Your task to perform on an android device: open chrome privacy settings Image 0: 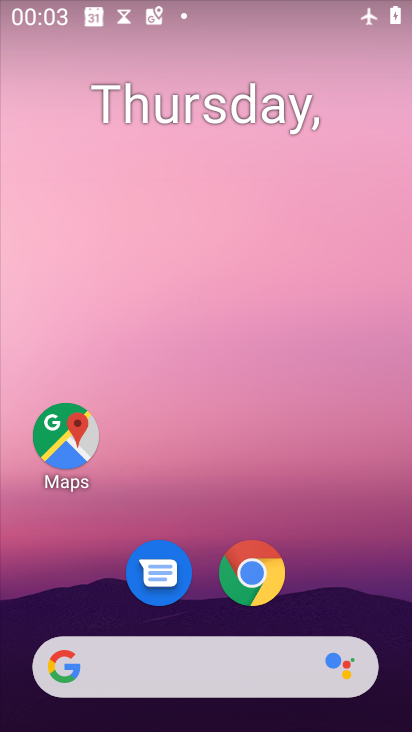
Step 0: click (253, 554)
Your task to perform on an android device: open chrome privacy settings Image 1: 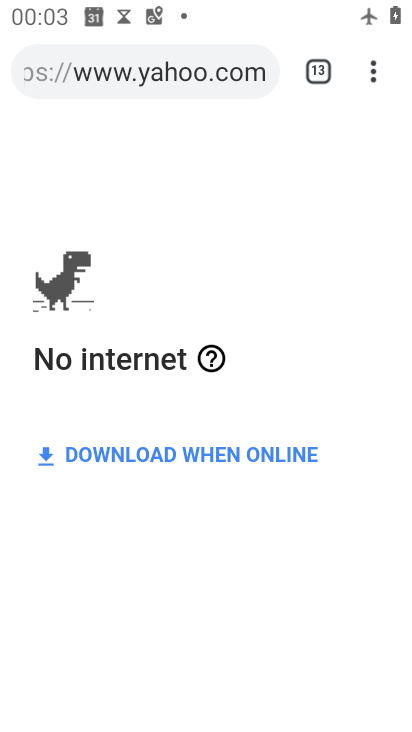
Step 1: click (379, 63)
Your task to perform on an android device: open chrome privacy settings Image 2: 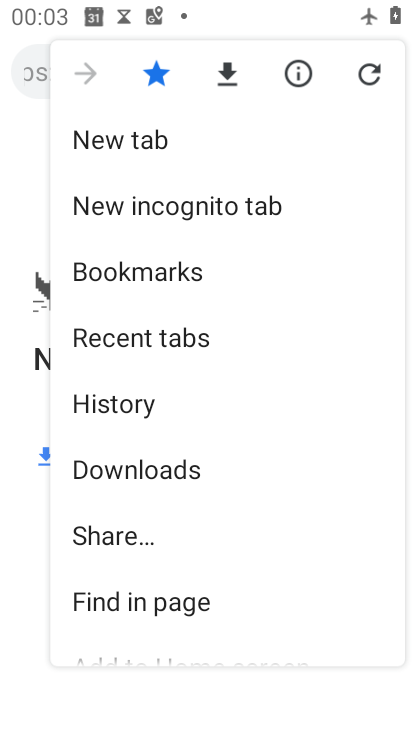
Step 2: drag from (201, 550) to (215, 235)
Your task to perform on an android device: open chrome privacy settings Image 3: 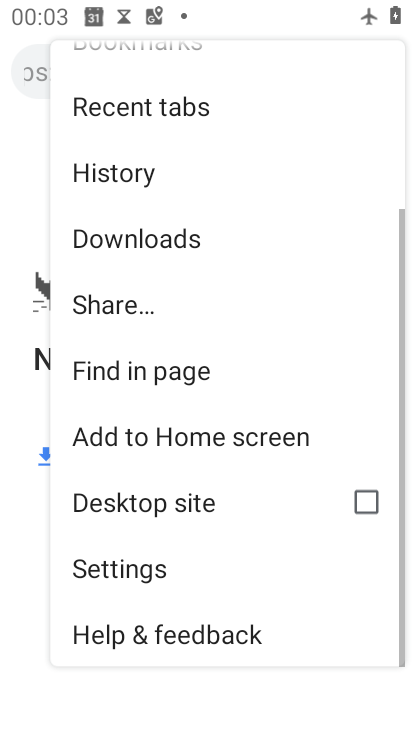
Step 3: click (155, 569)
Your task to perform on an android device: open chrome privacy settings Image 4: 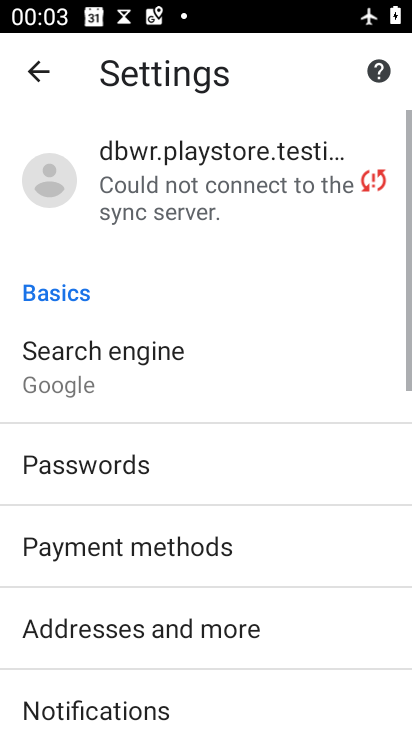
Step 4: drag from (161, 535) to (207, 157)
Your task to perform on an android device: open chrome privacy settings Image 5: 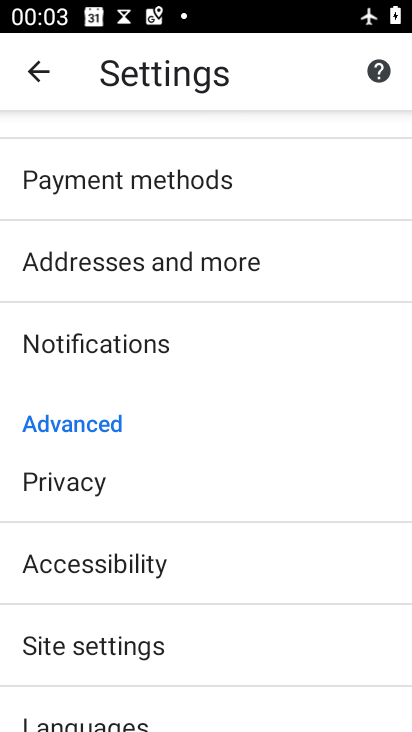
Step 5: click (96, 483)
Your task to perform on an android device: open chrome privacy settings Image 6: 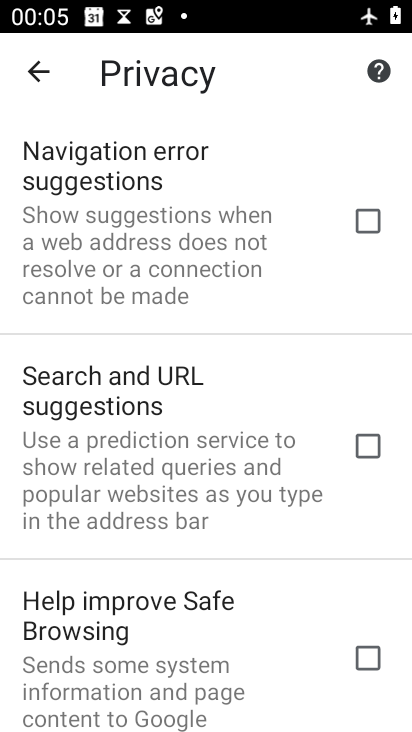
Step 6: task complete